Your task to perform on an android device: Open Youtube and go to the subscriptions tab Image 0: 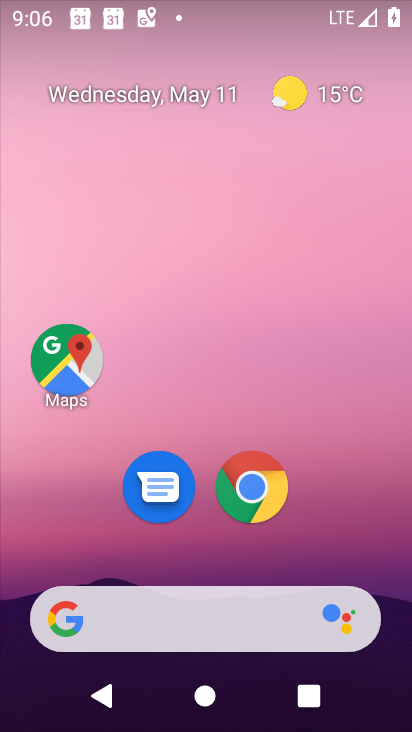
Step 0: drag from (241, 641) to (248, 202)
Your task to perform on an android device: Open Youtube and go to the subscriptions tab Image 1: 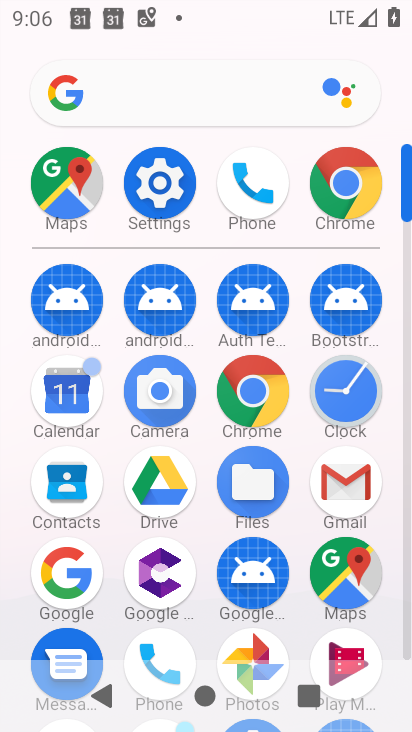
Step 1: drag from (294, 522) to (283, 356)
Your task to perform on an android device: Open Youtube and go to the subscriptions tab Image 2: 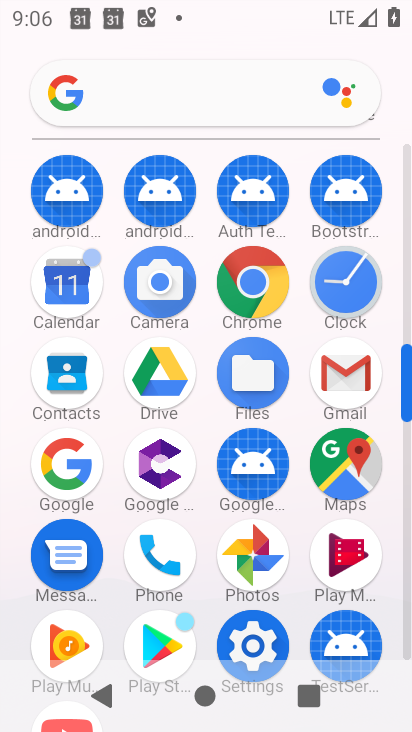
Step 2: drag from (283, 501) to (267, 421)
Your task to perform on an android device: Open Youtube and go to the subscriptions tab Image 3: 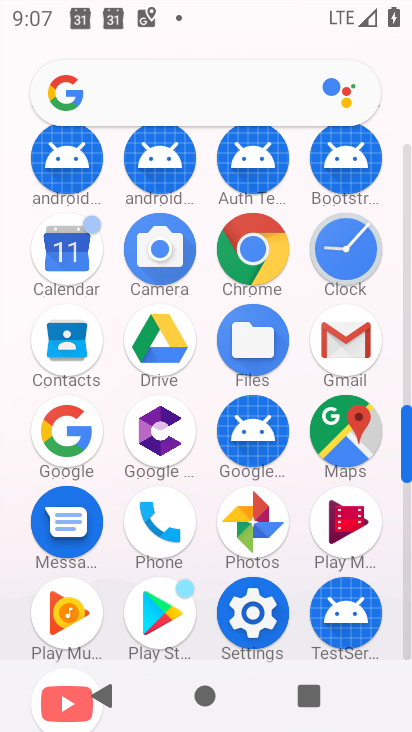
Step 3: click (246, 257)
Your task to perform on an android device: Open Youtube and go to the subscriptions tab Image 4: 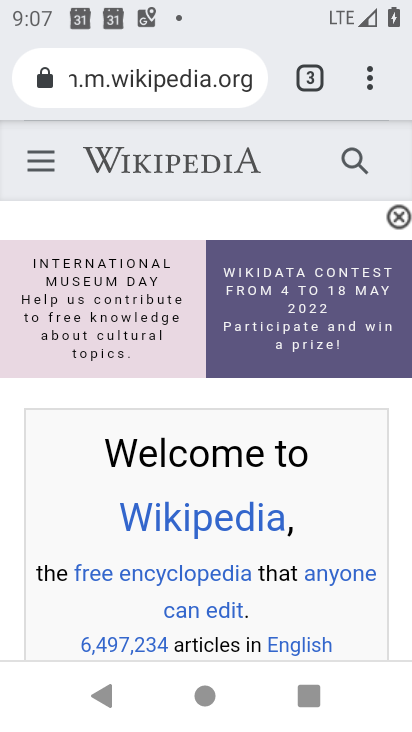
Step 4: press home button
Your task to perform on an android device: Open Youtube and go to the subscriptions tab Image 5: 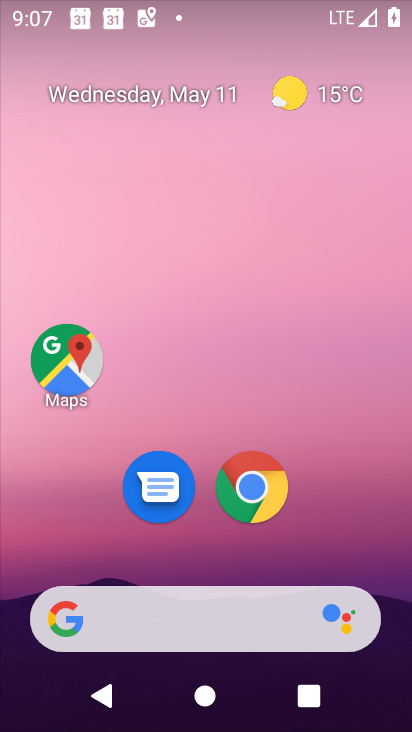
Step 5: drag from (272, 677) to (311, 166)
Your task to perform on an android device: Open Youtube and go to the subscriptions tab Image 6: 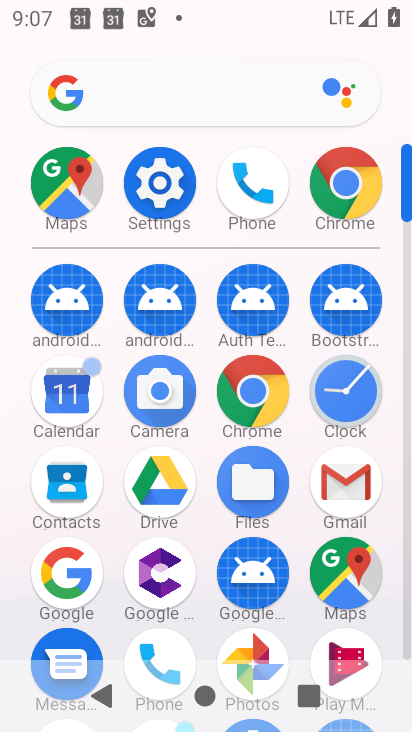
Step 6: drag from (289, 433) to (273, 199)
Your task to perform on an android device: Open Youtube and go to the subscriptions tab Image 7: 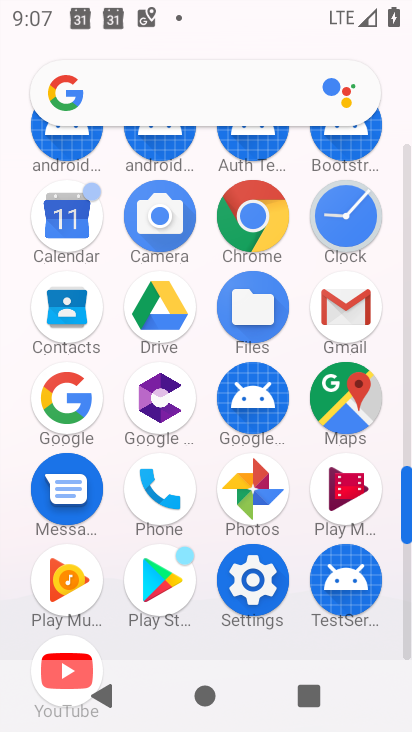
Step 7: drag from (115, 523) to (98, 422)
Your task to perform on an android device: Open Youtube and go to the subscriptions tab Image 8: 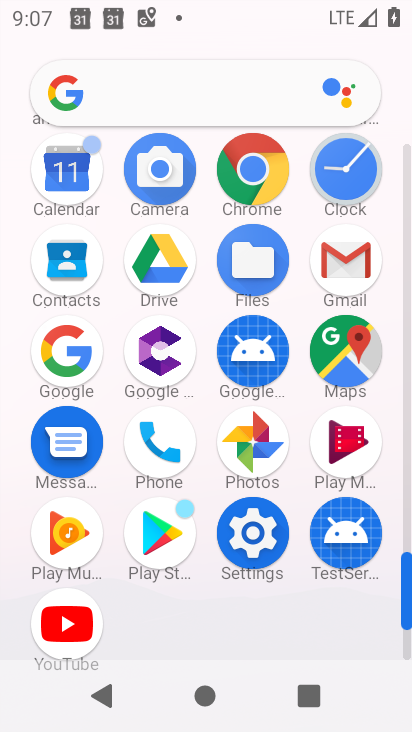
Step 8: click (78, 607)
Your task to perform on an android device: Open Youtube and go to the subscriptions tab Image 9: 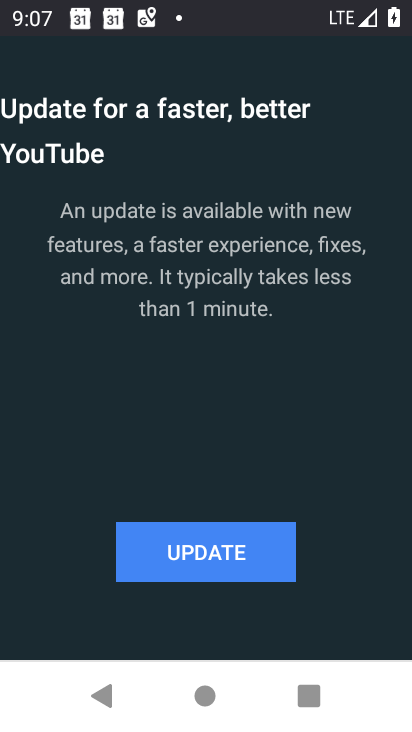
Step 9: click (207, 559)
Your task to perform on an android device: Open Youtube and go to the subscriptions tab Image 10: 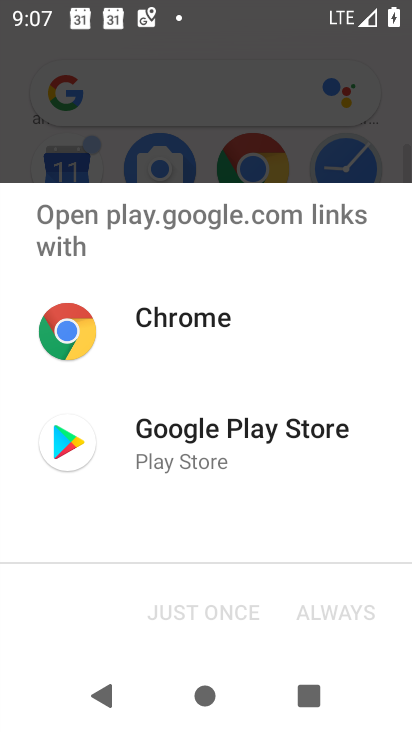
Step 10: click (173, 475)
Your task to perform on an android device: Open Youtube and go to the subscriptions tab Image 11: 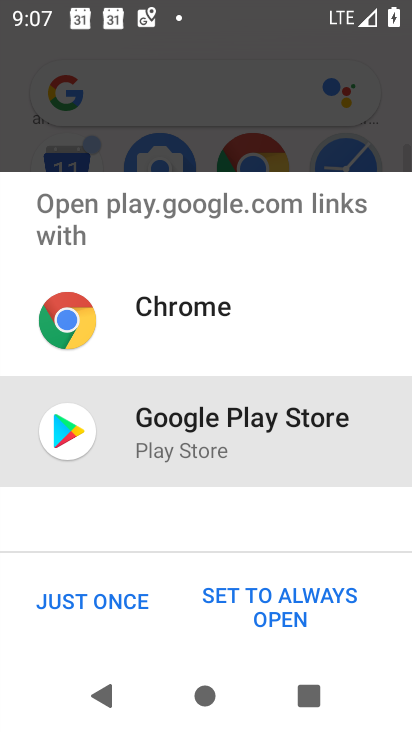
Step 11: click (130, 598)
Your task to perform on an android device: Open Youtube and go to the subscriptions tab Image 12: 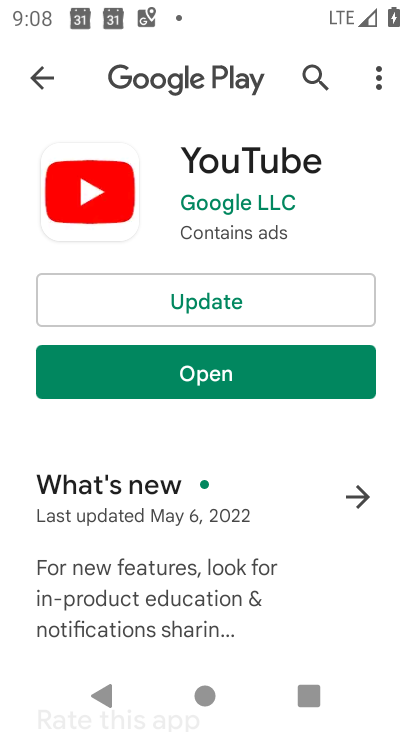
Step 12: click (218, 289)
Your task to perform on an android device: Open Youtube and go to the subscriptions tab Image 13: 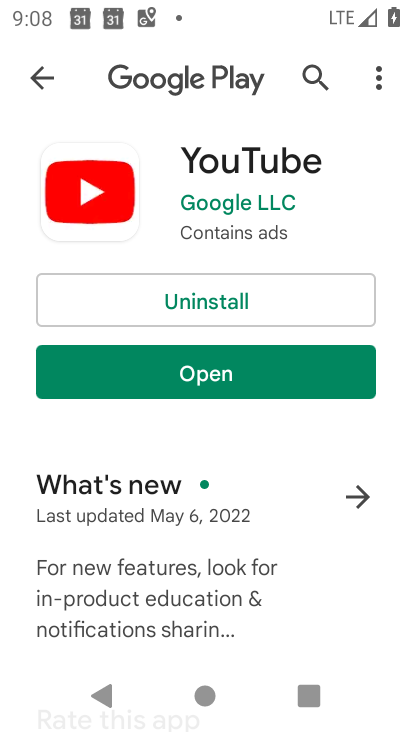
Step 13: click (202, 372)
Your task to perform on an android device: Open Youtube and go to the subscriptions tab Image 14: 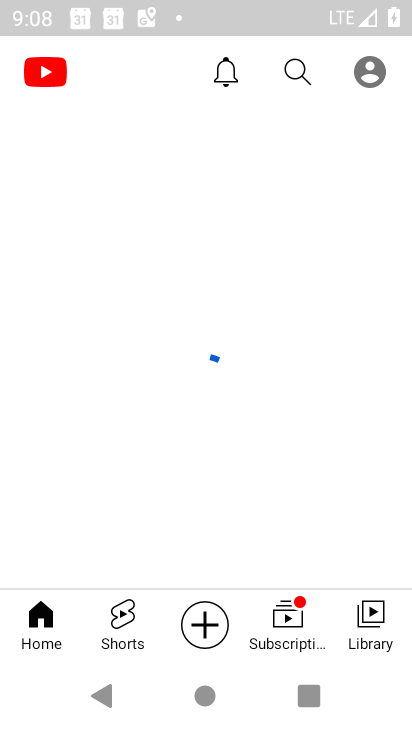
Step 14: click (259, 610)
Your task to perform on an android device: Open Youtube and go to the subscriptions tab Image 15: 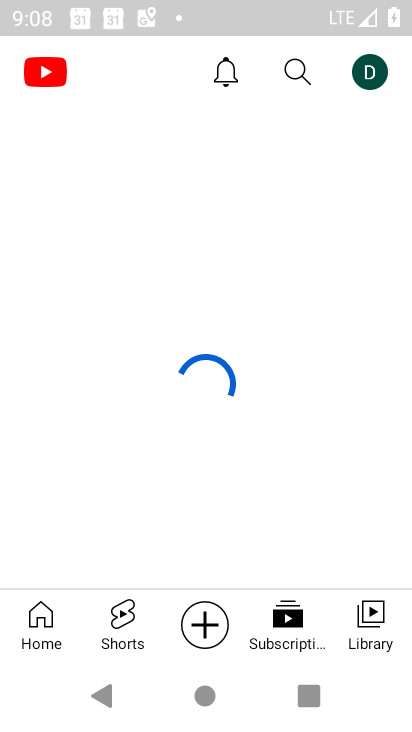
Step 15: task complete